Your task to perform on an android device: move a message to another label in the gmail app Image 0: 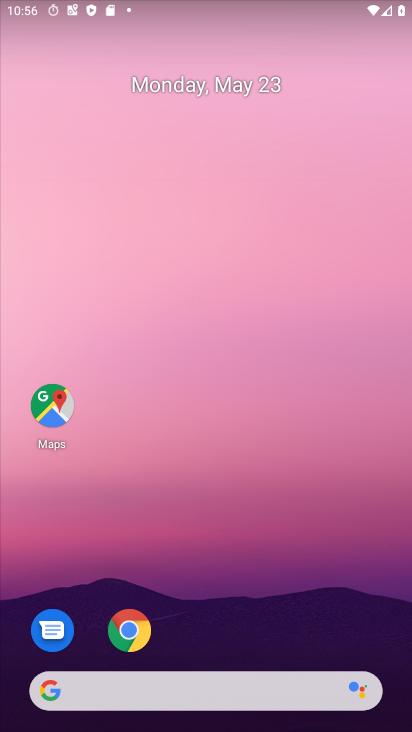
Step 0: drag from (296, 638) to (294, 12)
Your task to perform on an android device: move a message to another label in the gmail app Image 1: 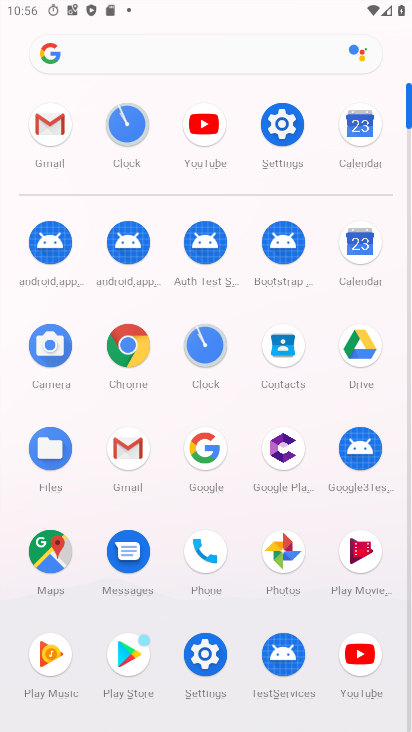
Step 1: click (49, 134)
Your task to perform on an android device: move a message to another label in the gmail app Image 2: 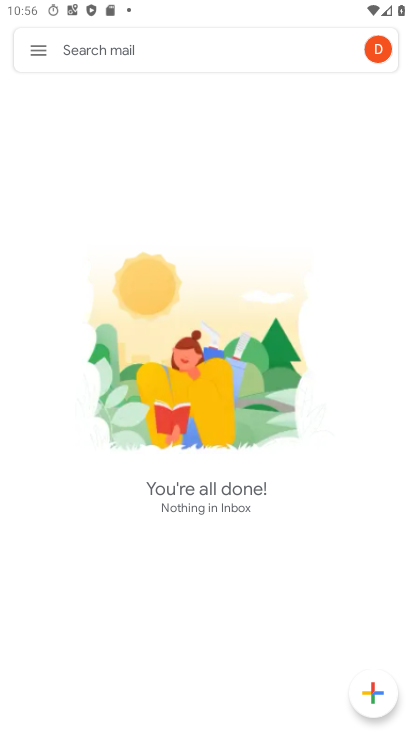
Step 2: click (35, 53)
Your task to perform on an android device: move a message to another label in the gmail app Image 3: 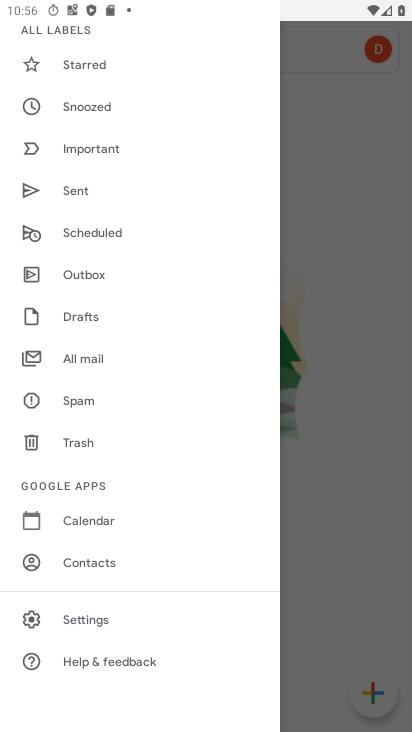
Step 3: click (79, 354)
Your task to perform on an android device: move a message to another label in the gmail app Image 4: 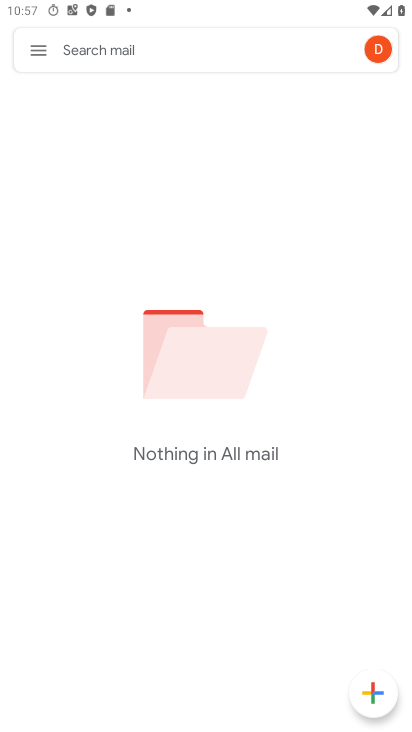
Step 4: task complete